Your task to perform on an android device: toggle translation in the chrome app Image 0: 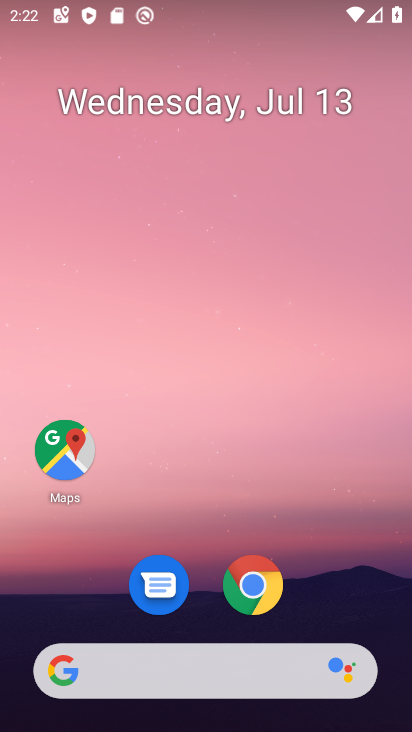
Step 0: click (251, 598)
Your task to perform on an android device: toggle translation in the chrome app Image 1: 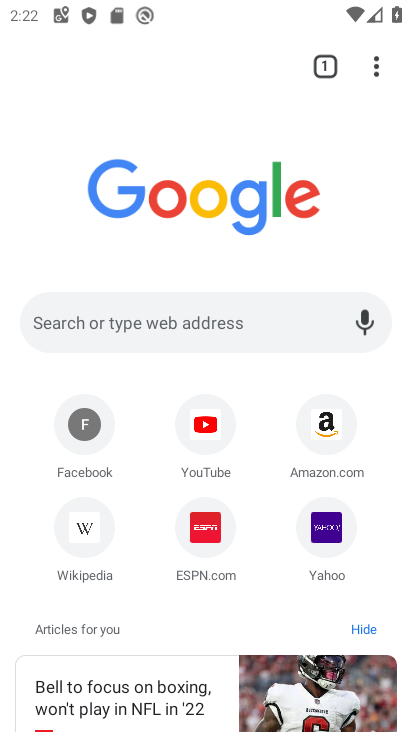
Step 1: drag from (374, 70) to (181, 568)
Your task to perform on an android device: toggle translation in the chrome app Image 2: 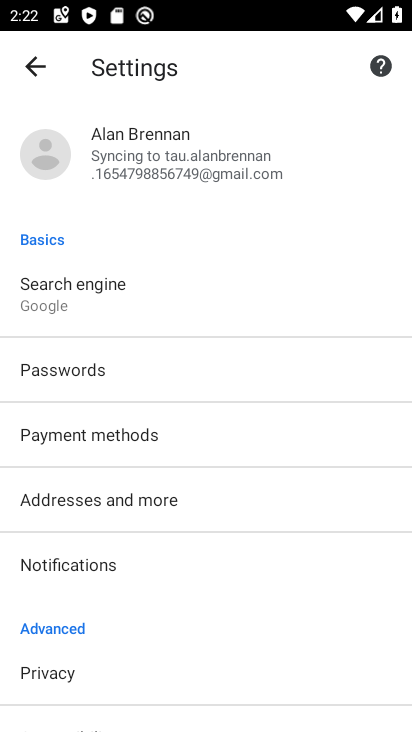
Step 2: drag from (113, 682) to (292, 59)
Your task to perform on an android device: toggle translation in the chrome app Image 3: 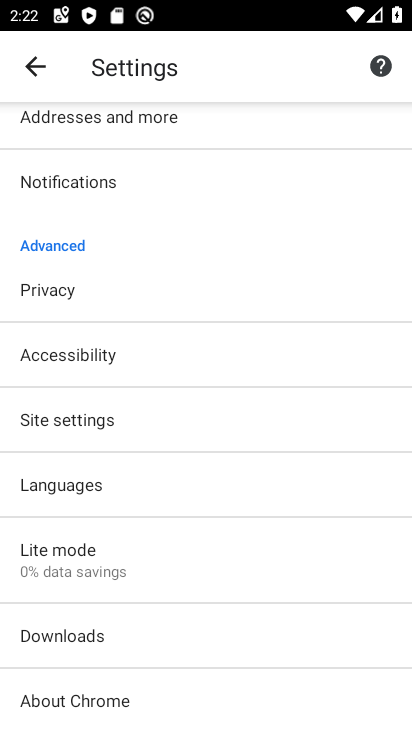
Step 3: click (96, 488)
Your task to perform on an android device: toggle translation in the chrome app Image 4: 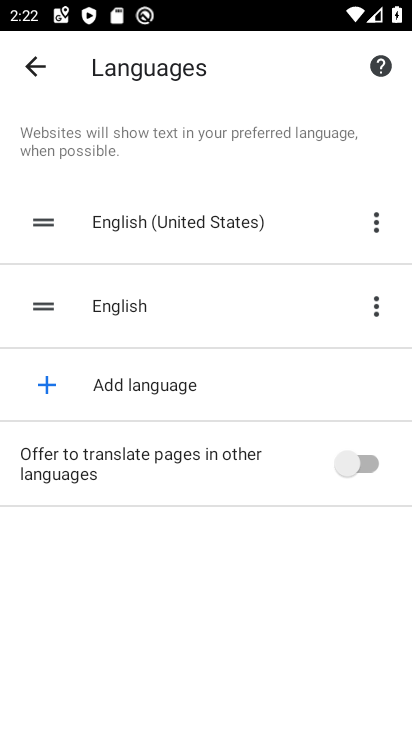
Step 4: click (360, 462)
Your task to perform on an android device: toggle translation in the chrome app Image 5: 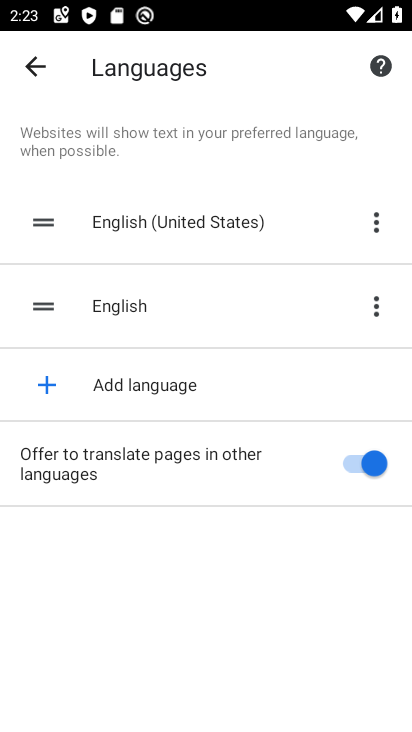
Step 5: task complete